Your task to perform on an android device: Go to network settings Image 0: 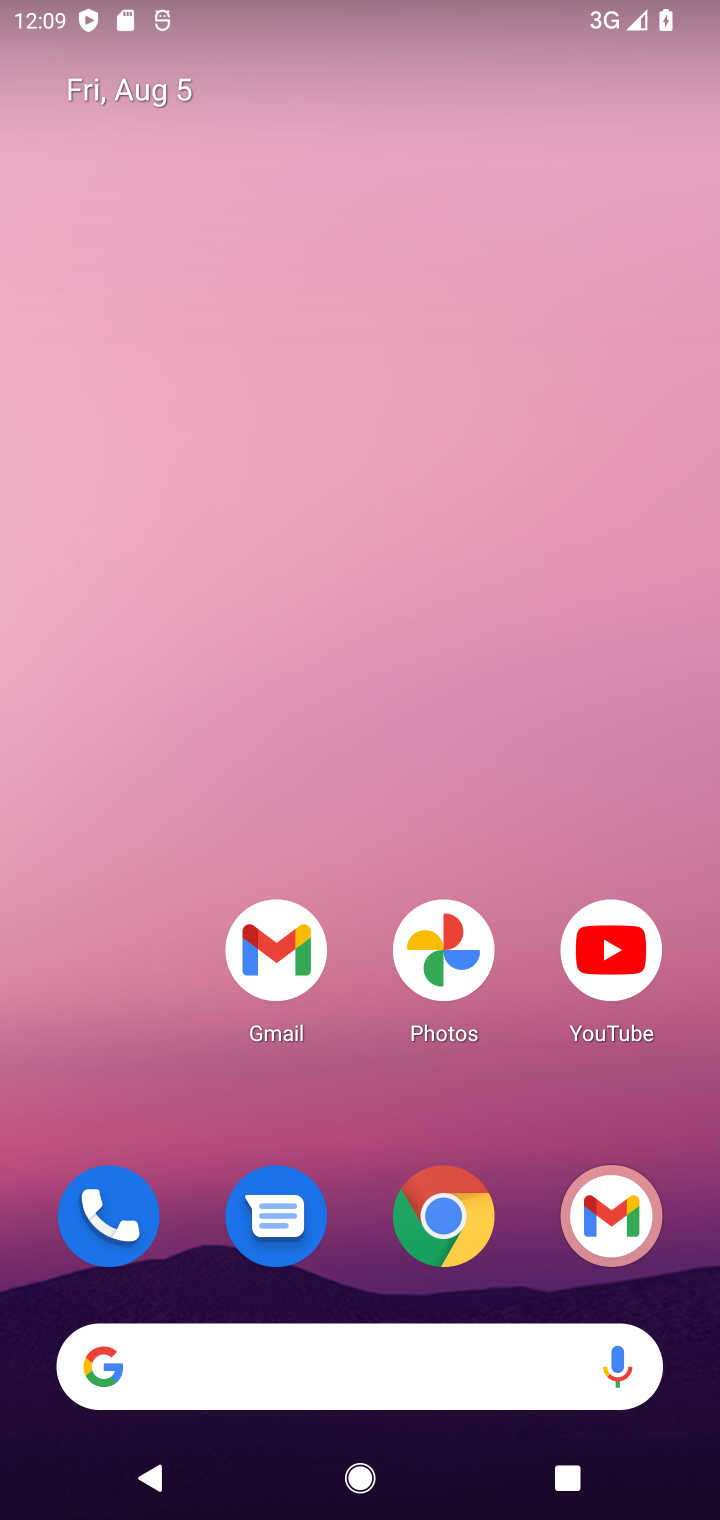
Step 0: drag from (422, 1333) to (491, 271)
Your task to perform on an android device: Go to network settings Image 1: 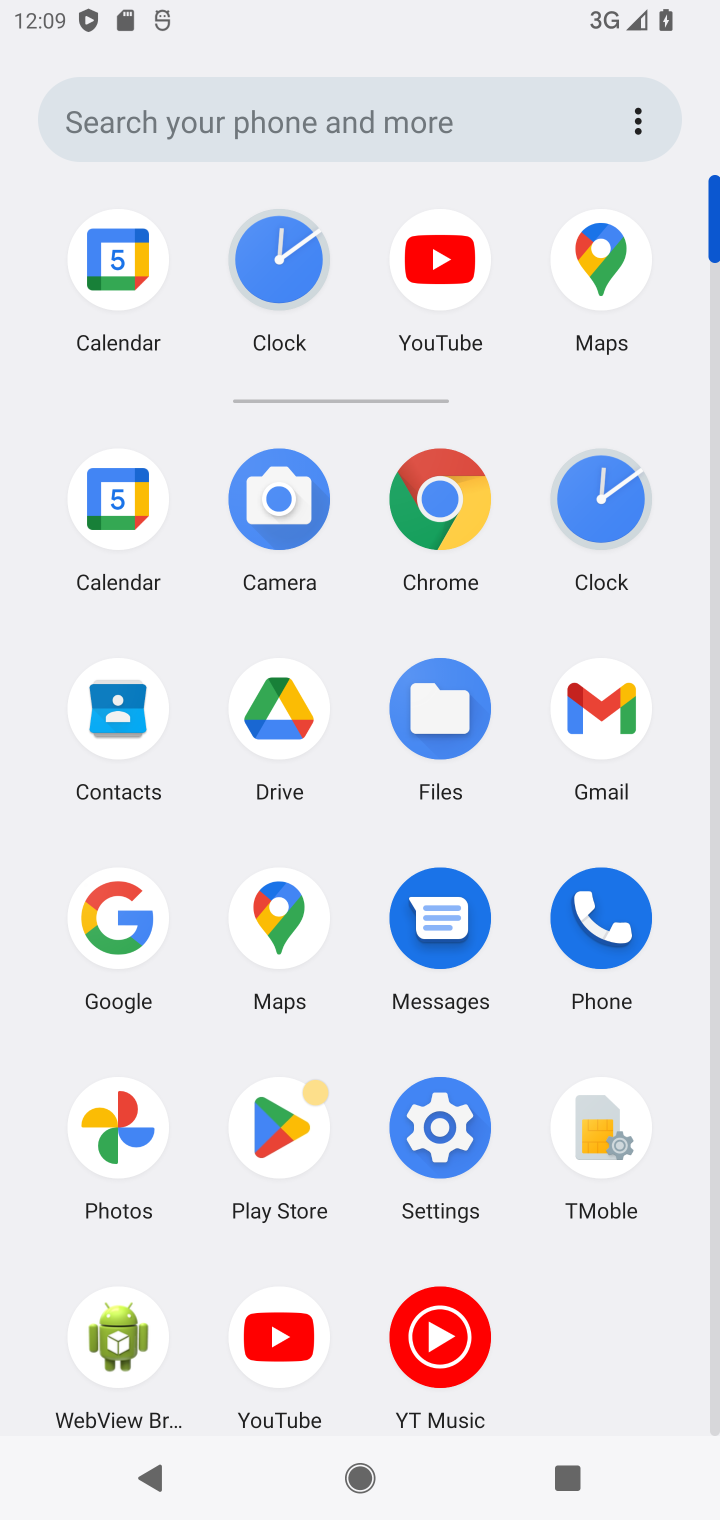
Step 1: click (451, 1157)
Your task to perform on an android device: Go to network settings Image 2: 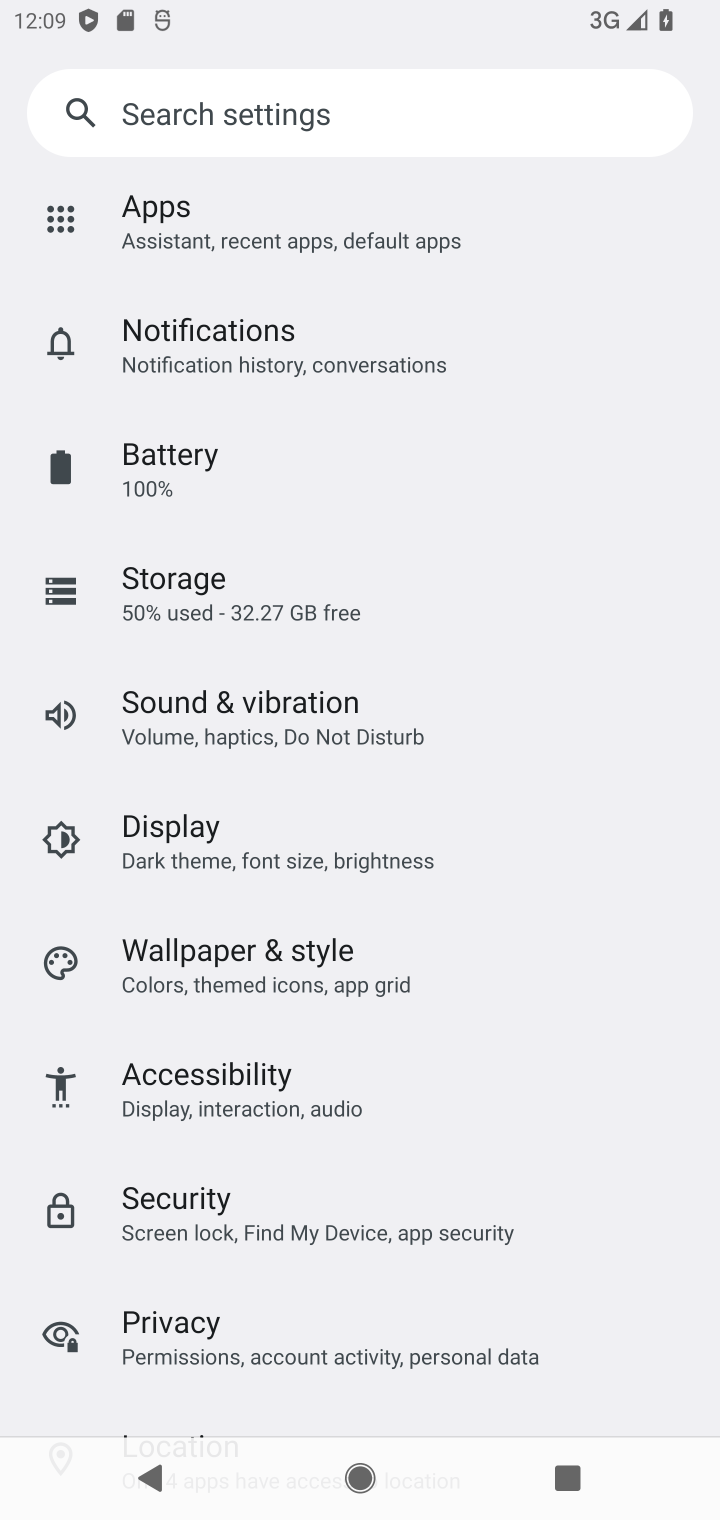
Step 2: drag from (597, 507) to (526, 887)
Your task to perform on an android device: Go to network settings Image 3: 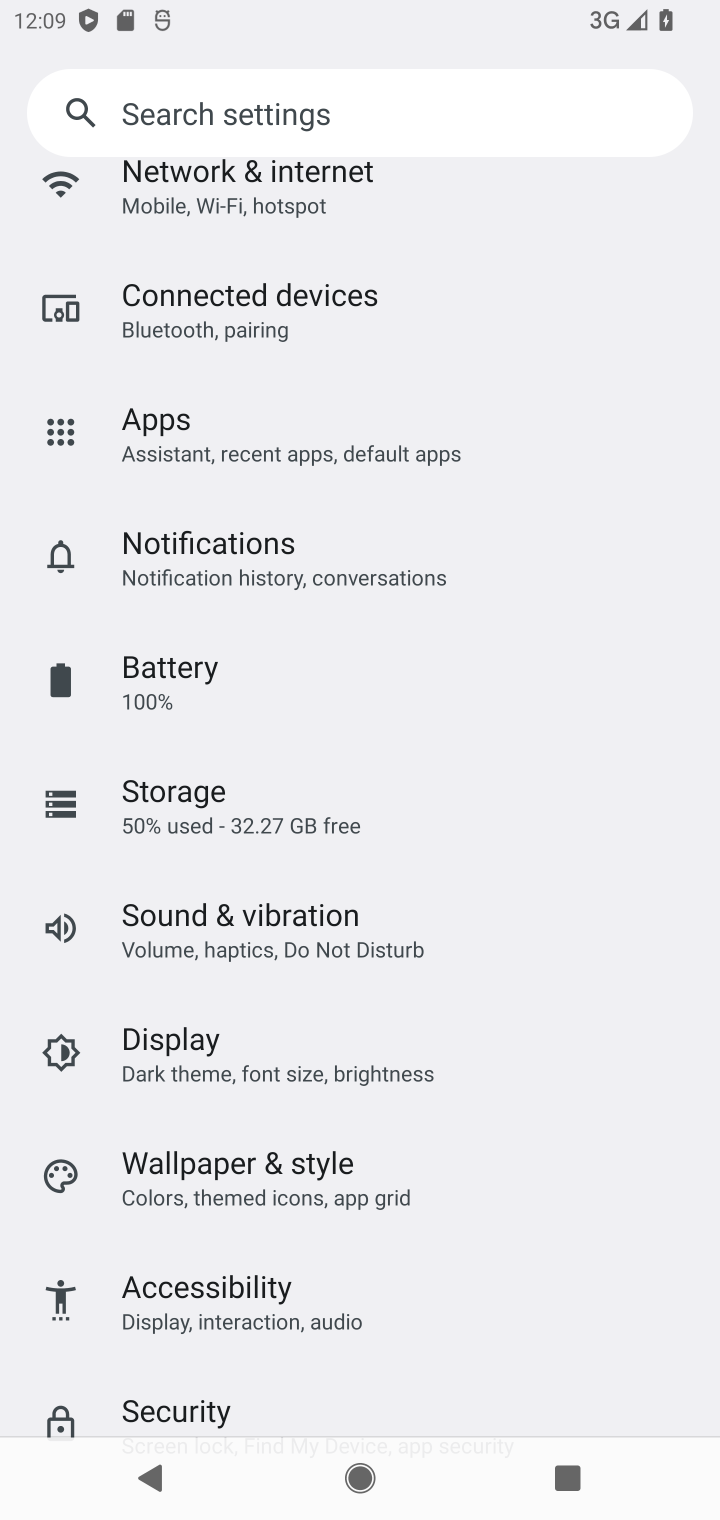
Step 3: drag from (599, 448) to (449, 1095)
Your task to perform on an android device: Go to network settings Image 4: 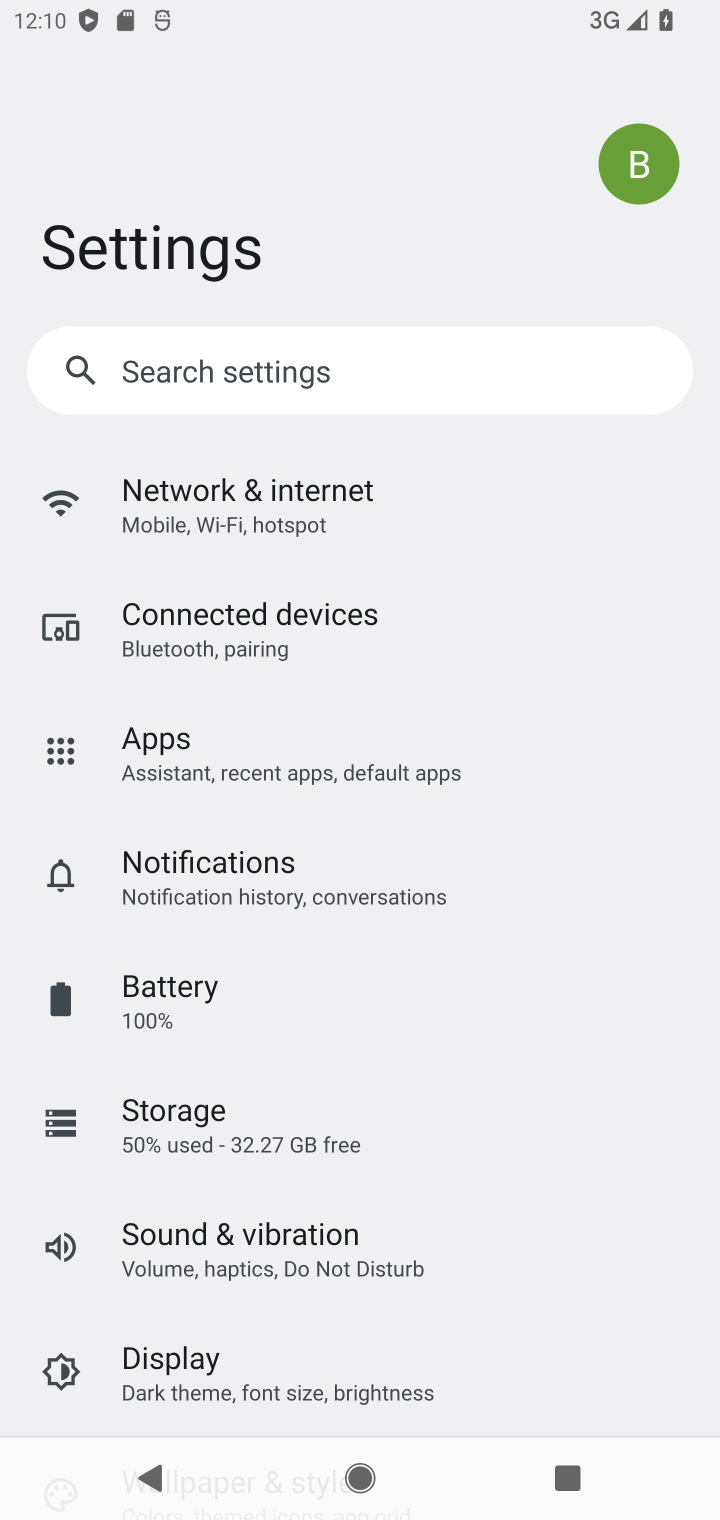
Step 4: click (324, 521)
Your task to perform on an android device: Go to network settings Image 5: 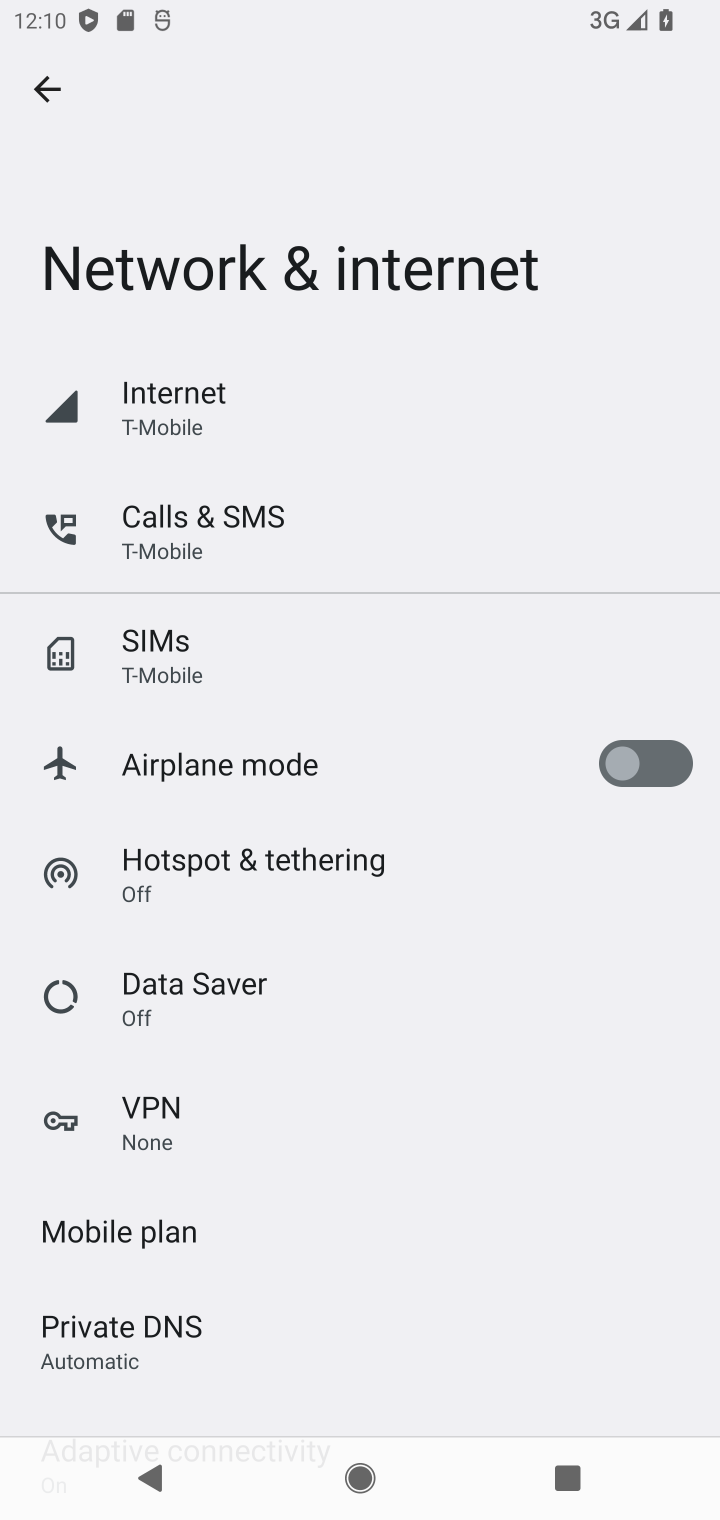
Step 5: task complete